Your task to perform on an android device: Open Google Chrome and click the shortcut for Amazon.com Image 0: 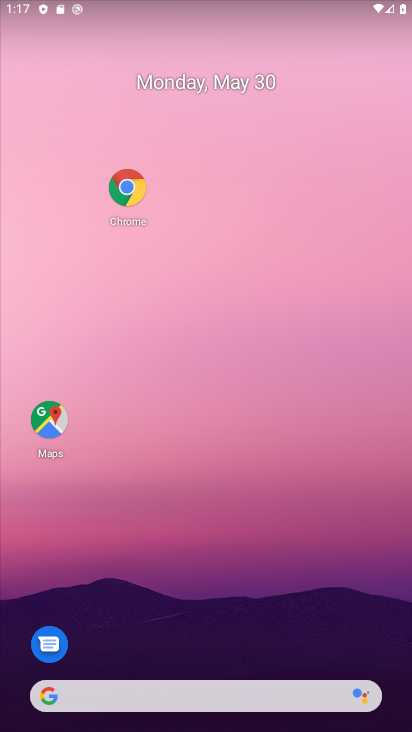
Step 0: click (116, 182)
Your task to perform on an android device: Open Google Chrome and click the shortcut for Amazon.com Image 1: 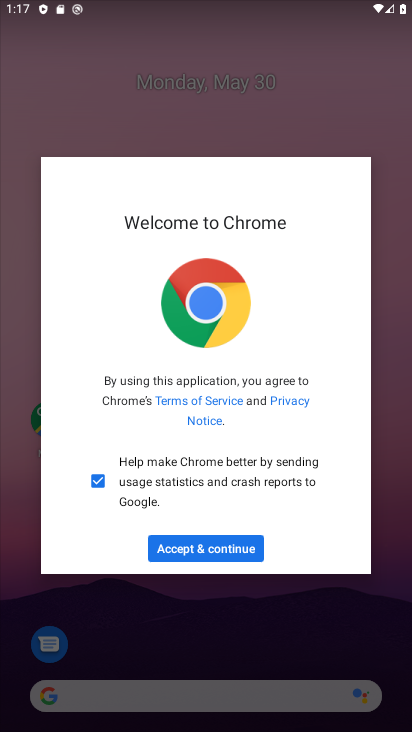
Step 1: click (187, 554)
Your task to perform on an android device: Open Google Chrome and click the shortcut for Amazon.com Image 2: 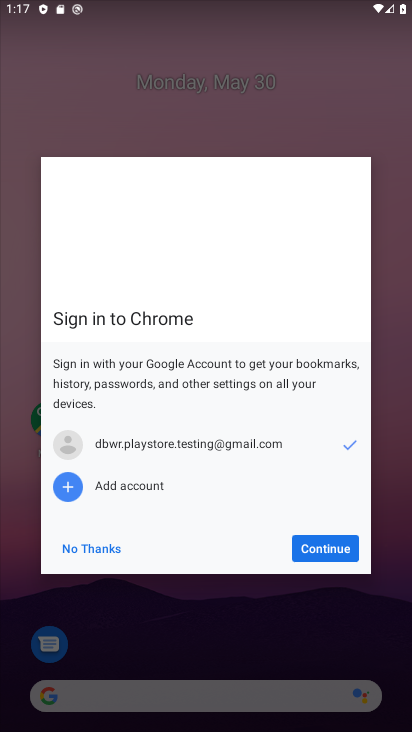
Step 2: click (317, 549)
Your task to perform on an android device: Open Google Chrome and click the shortcut for Amazon.com Image 3: 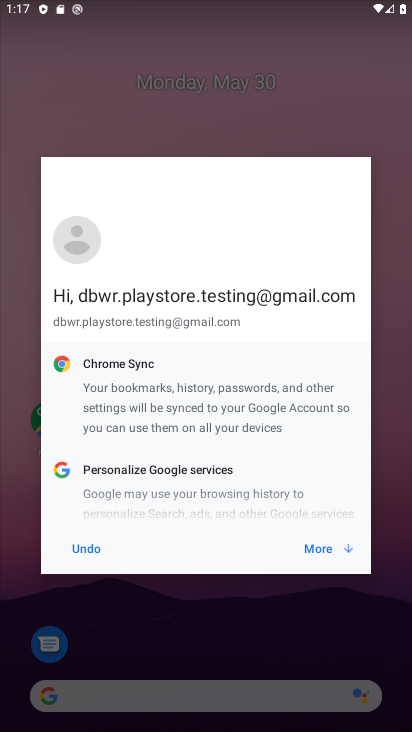
Step 3: click (317, 549)
Your task to perform on an android device: Open Google Chrome and click the shortcut for Amazon.com Image 4: 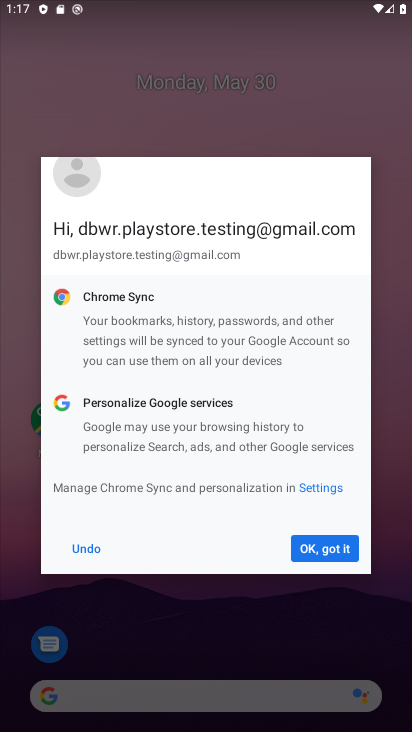
Step 4: click (317, 549)
Your task to perform on an android device: Open Google Chrome and click the shortcut for Amazon.com Image 5: 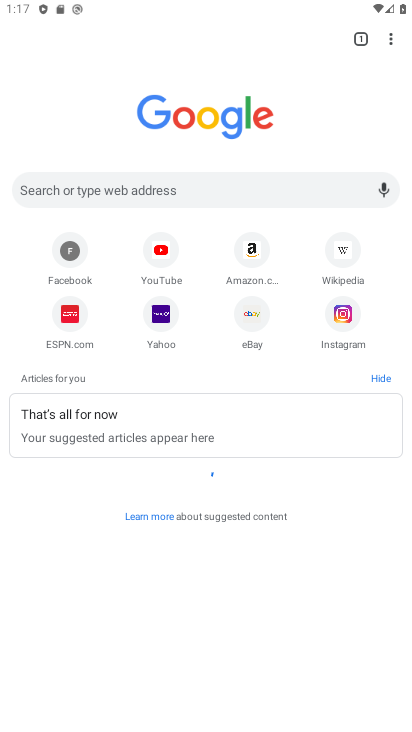
Step 5: click (248, 253)
Your task to perform on an android device: Open Google Chrome and click the shortcut for Amazon.com Image 6: 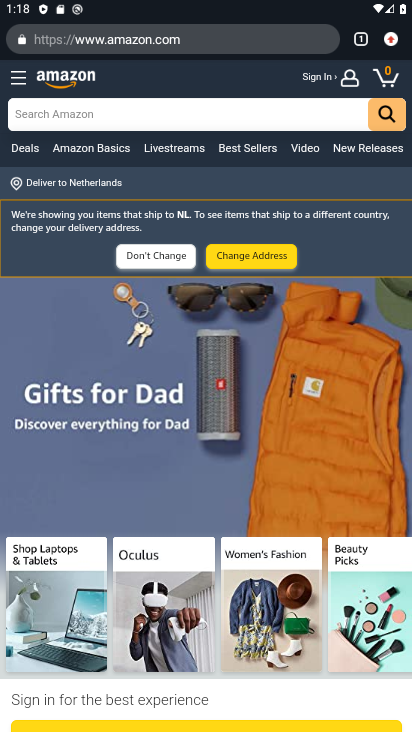
Step 6: task complete